Your task to perform on an android device: turn on showing notifications on the lock screen Image 0: 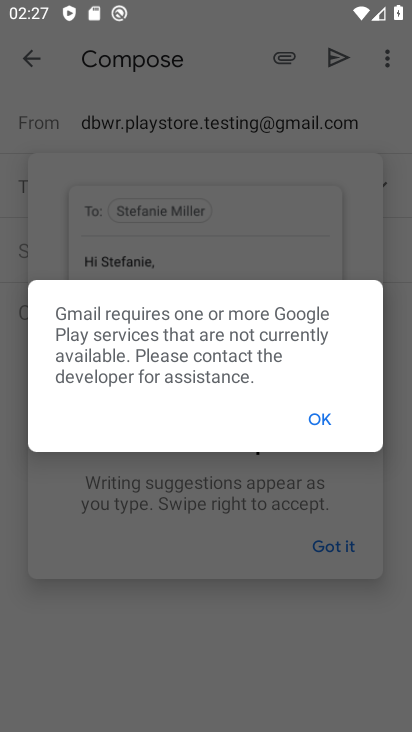
Step 0: press home button
Your task to perform on an android device: turn on showing notifications on the lock screen Image 1: 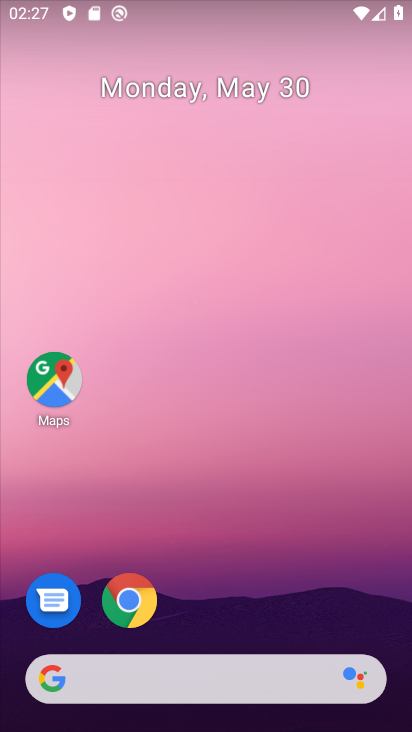
Step 1: drag from (253, 602) to (285, 135)
Your task to perform on an android device: turn on showing notifications on the lock screen Image 2: 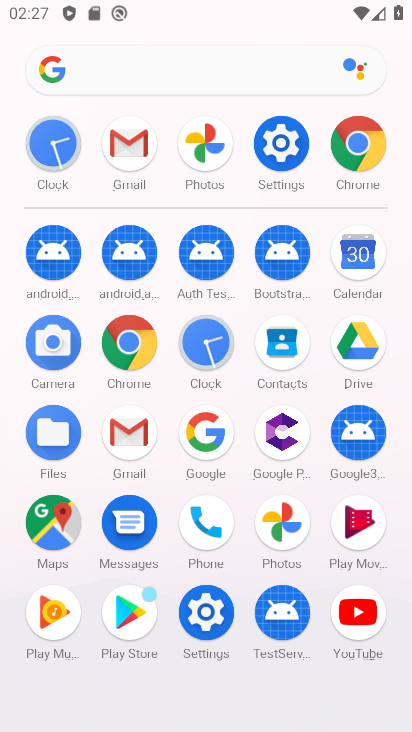
Step 2: click (280, 146)
Your task to perform on an android device: turn on showing notifications on the lock screen Image 3: 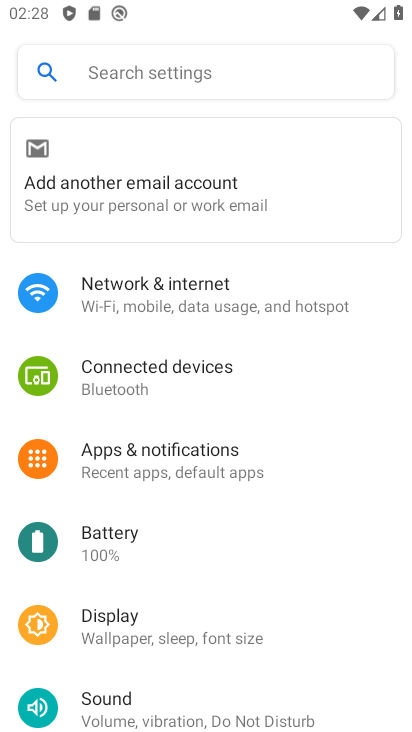
Step 3: click (155, 447)
Your task to perform on an android device: turn on showing notifications on the lock screen Image 4: 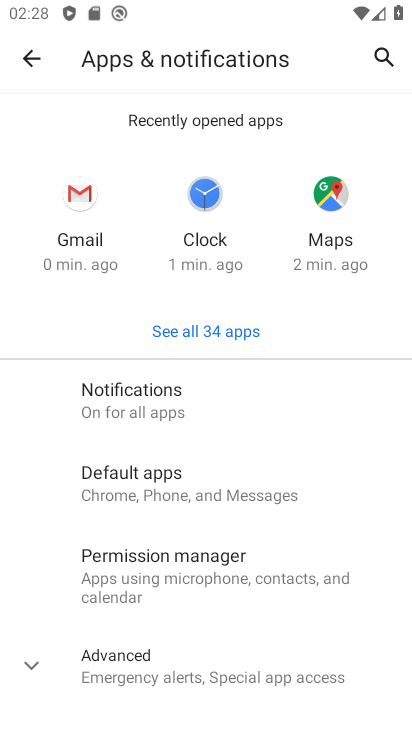
Step 4: click (187, 404)
Your task to perform on an android device: turn on showing notifications on the lock screen Image 5: 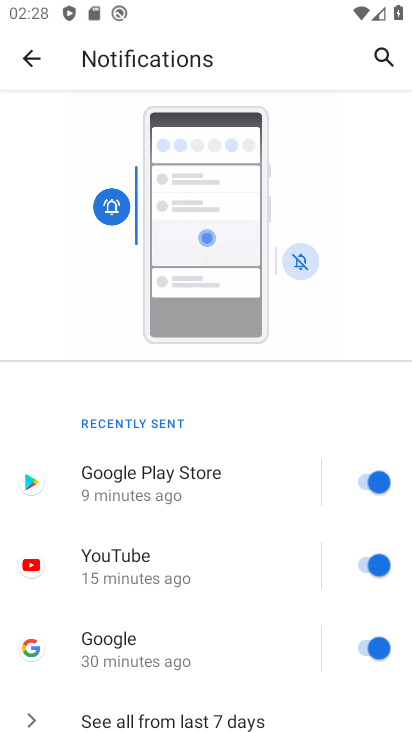
Step 5: drag from (179, 665) to (223, 273)
Your task to perform on an android device: turn on showing notifications on the lock screen Image 6: 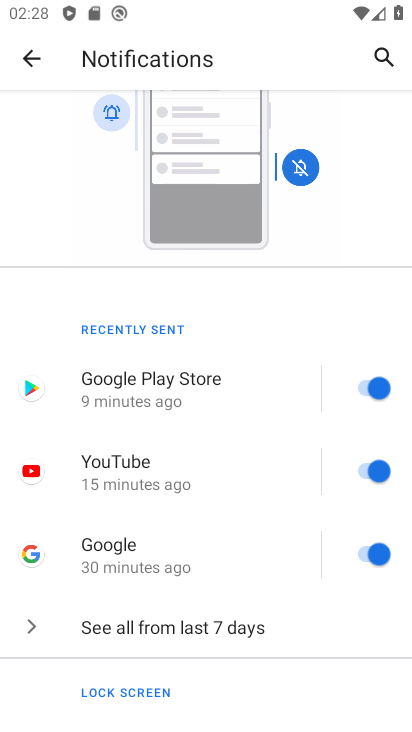
Step 6: drag from (235, 581) to (247, 197)
Your task to perform on an android device: turn on showing notifications on the lock screen Image 7: 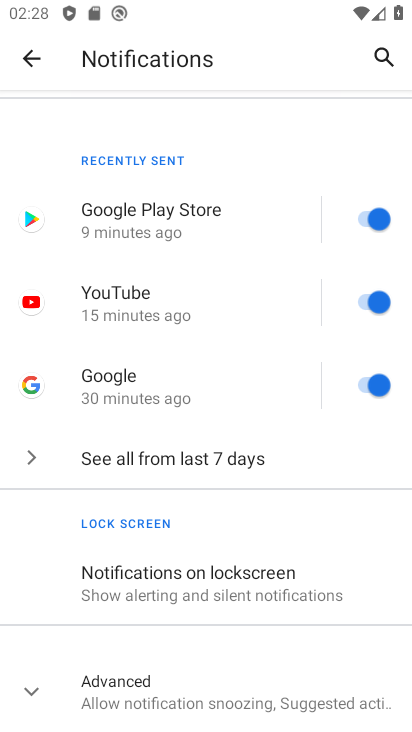
Step 7: click (262, 596)
Your task to perform on an android device: turn on showing notifications on the lock screen Image 8: 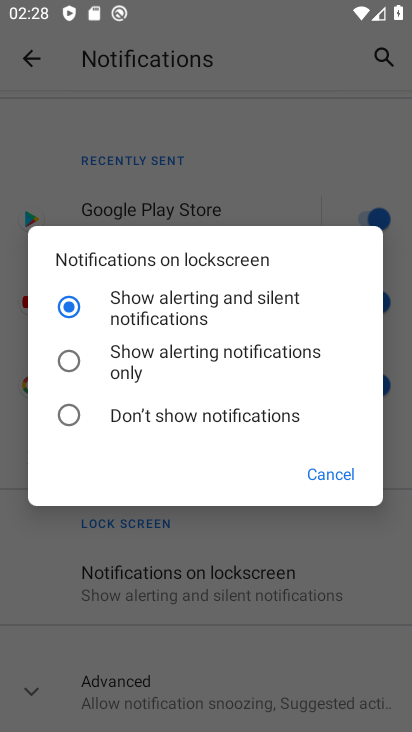
Step 8: click (228, 315)
Your task to perform on an android device: turn on showing notifications on the lock screen Image 9: 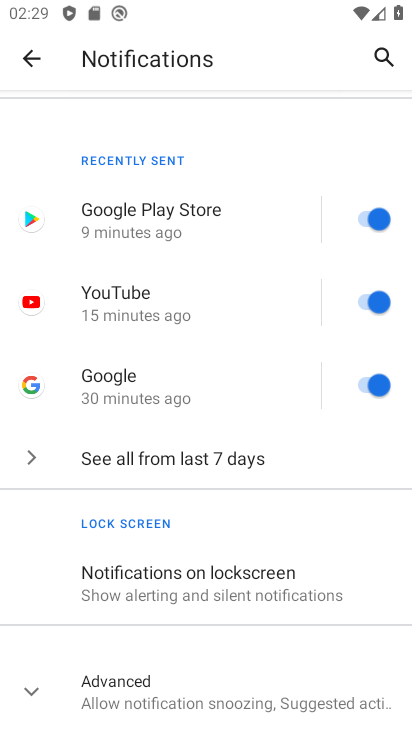
Step 9: task complete